Your task to perform on an android device: Empty the shopping cart on ebay. Image 0: 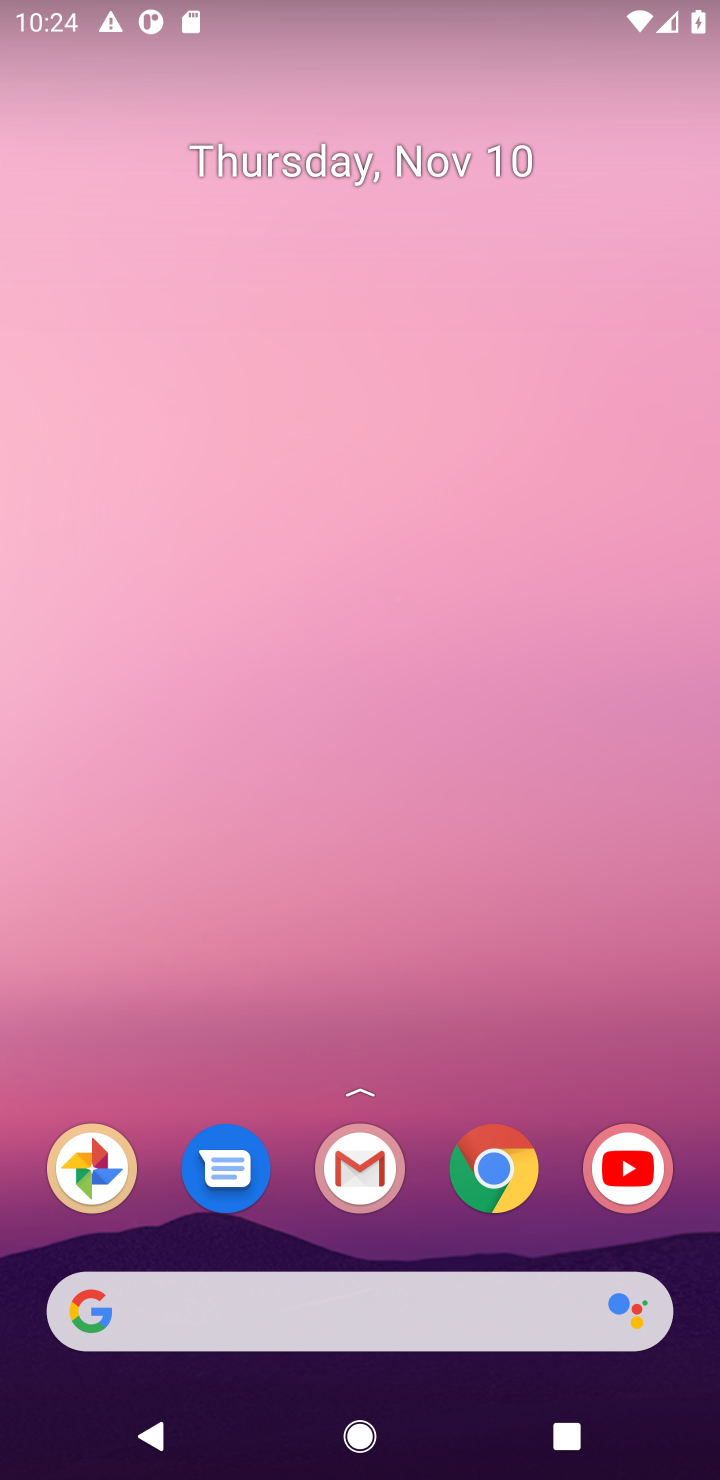
Step 0: click (480, 1173)
Your task to perform on an android device: Empty the shopping cart on ebay. Image 1: 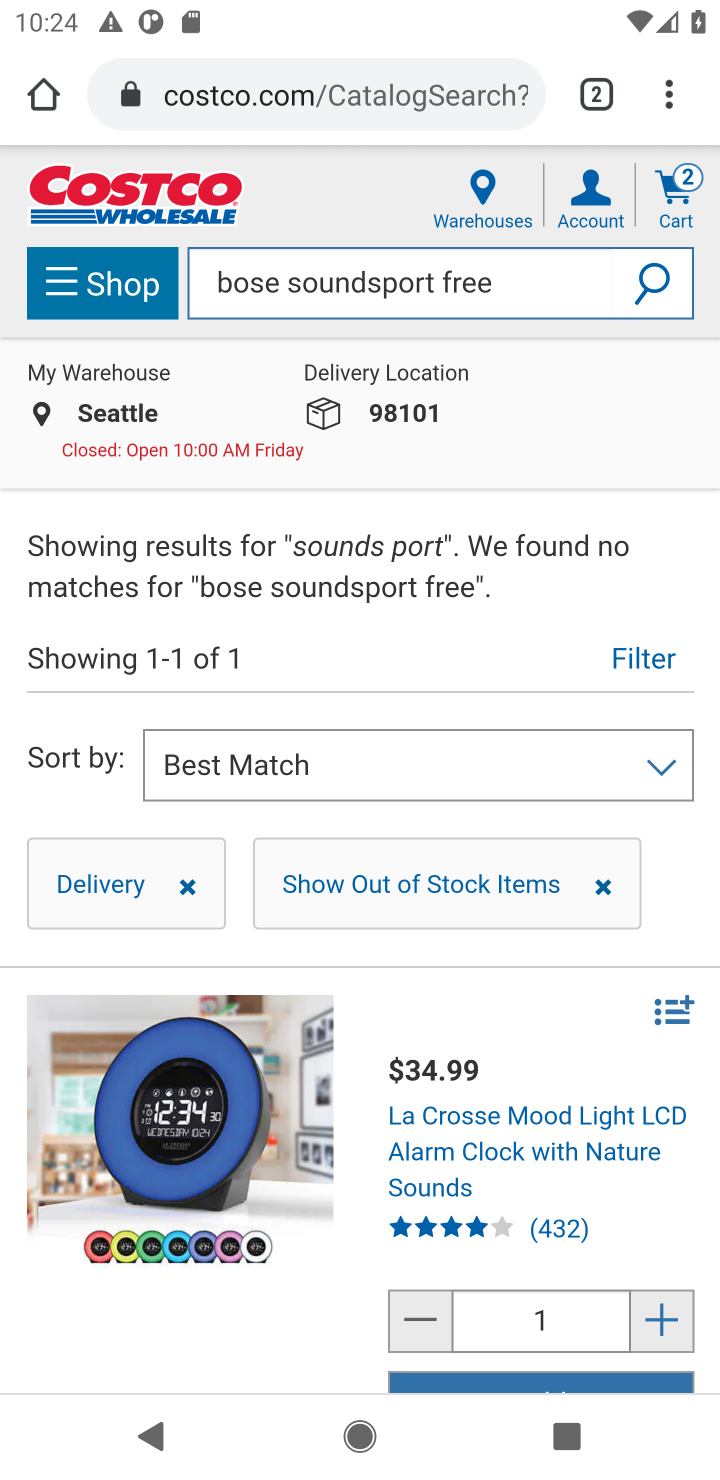
Step 1: click (256, 94)
Your task to perform on an android device: Empty the shopping cart on ebay. Image 2: 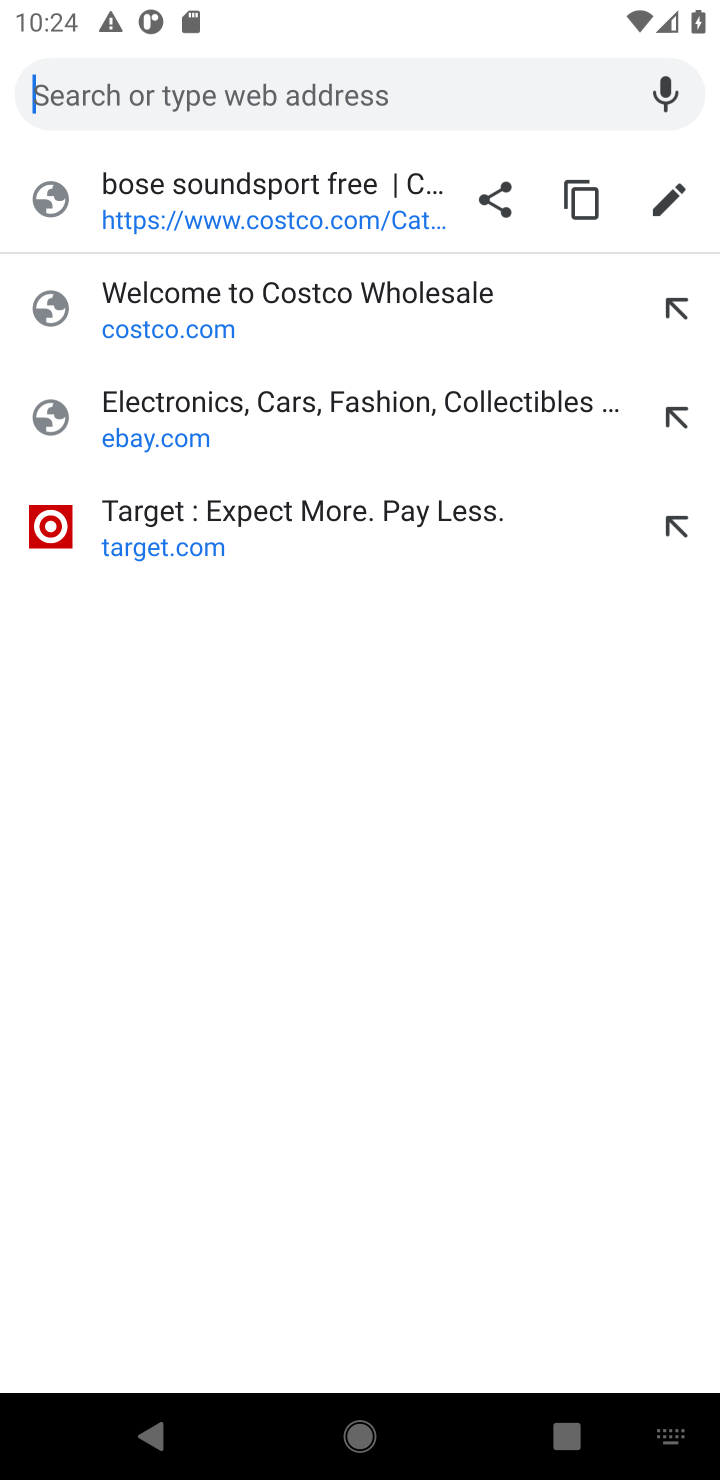
Step 2: click (150, 432)
Your task to perform on an android device: Empty the shopping cart on ebay. Image 3: 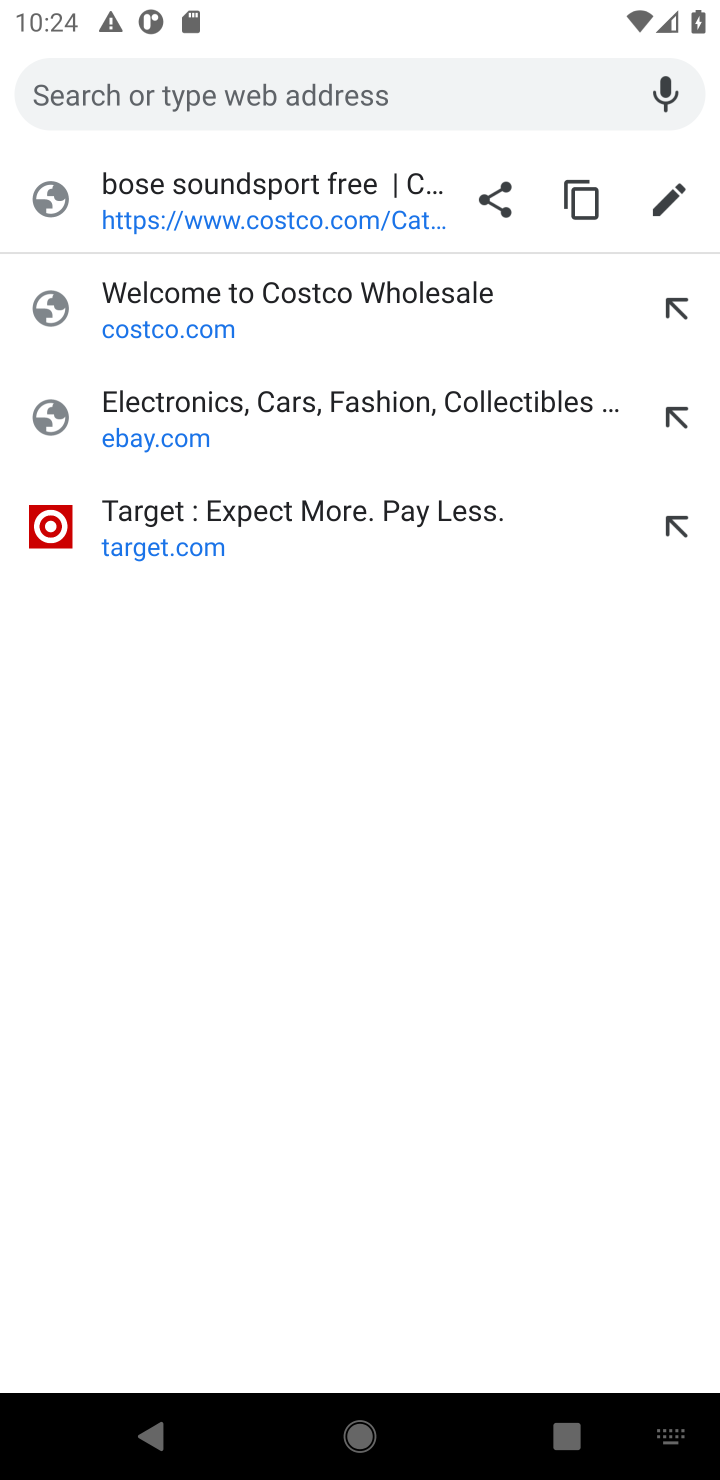
Step 3: click (156, 433)
Your task to perform on an android device: Empty the shopping cart on ebay. Image 4: 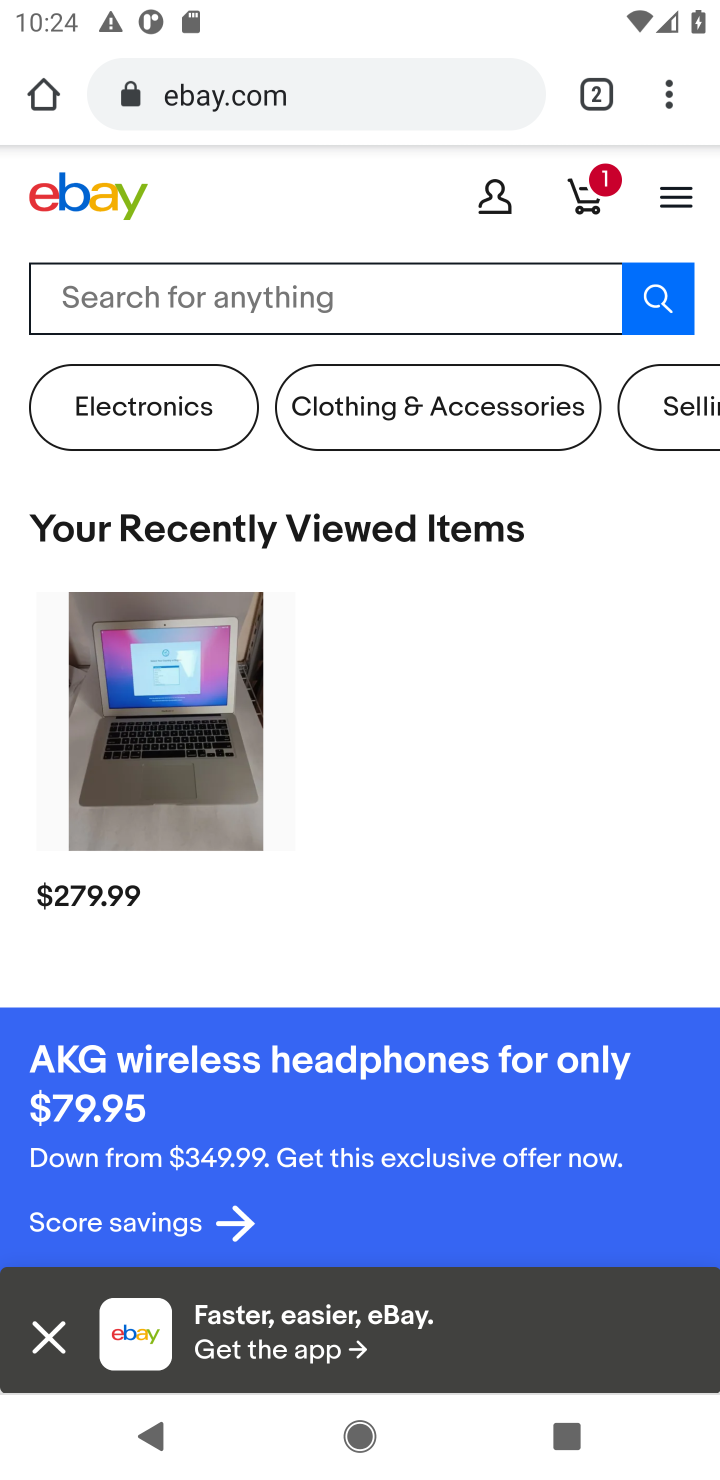
Step 4: click (594, 204)
Your task to perform on an android device: Empty the shopping cart on ebay. Image 5: 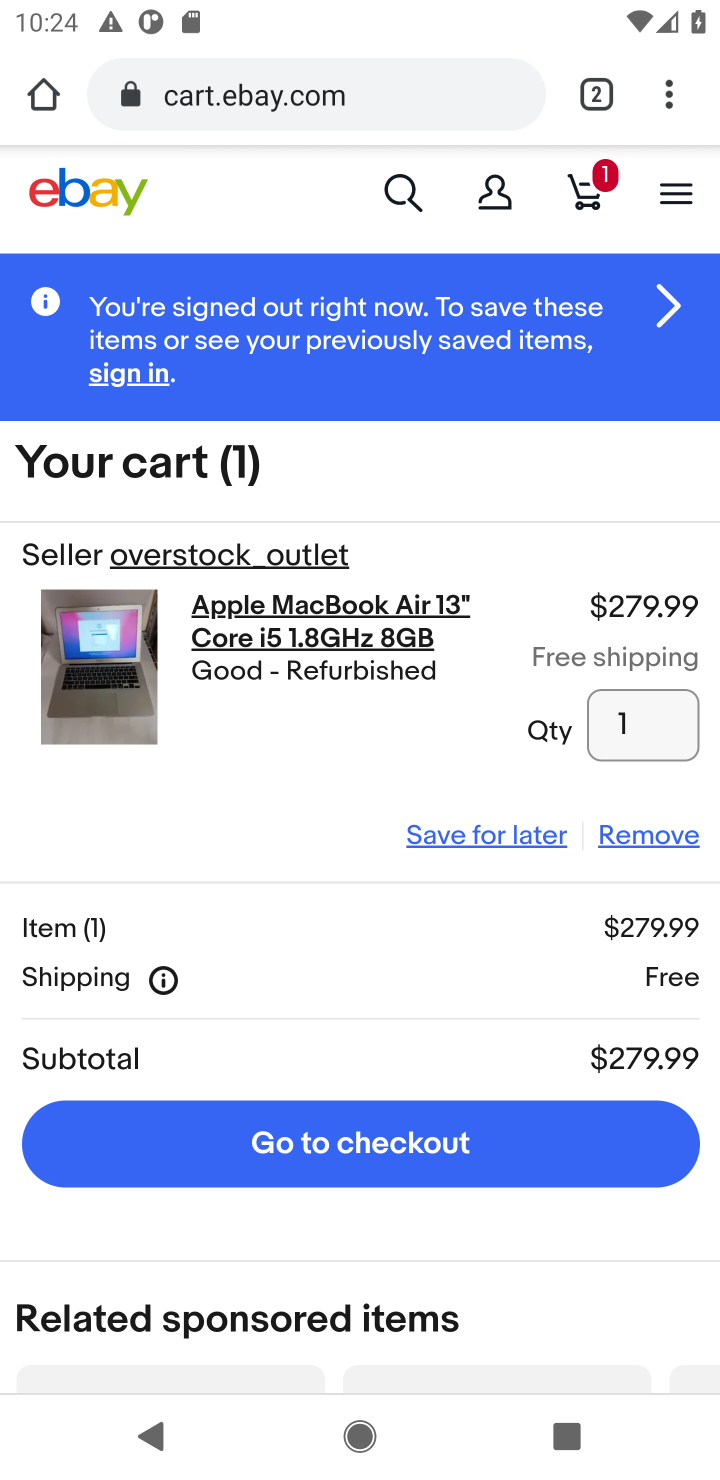
Step 5: click (633, 830)
Your task to perform on an android device: Empty the shopping cart on ebay. Image 6: 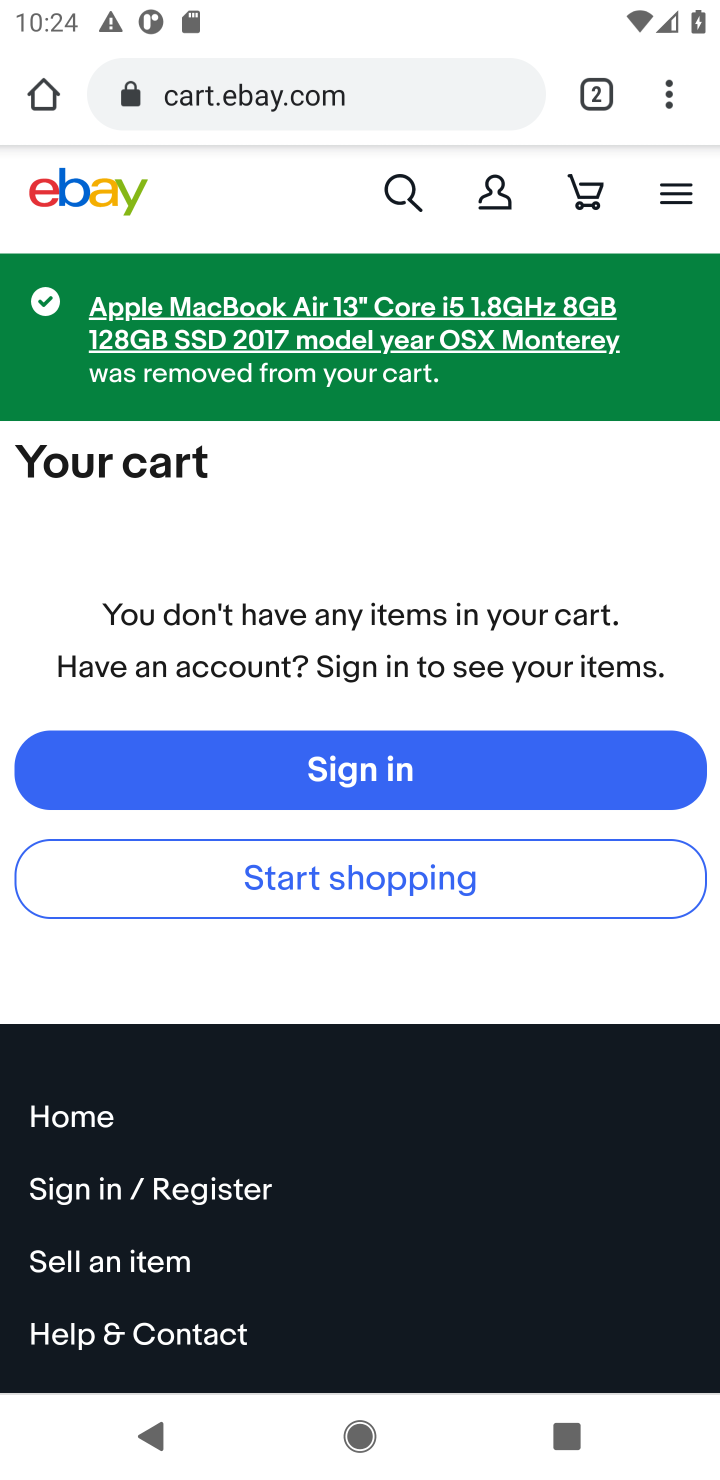
Step 6: task complete